Your task to perform on an android device: Open Google Maps and go to "Timeline" Image 0: 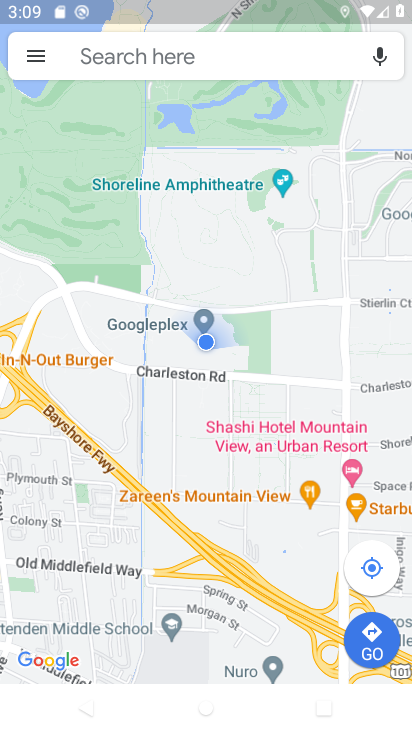
Step 0: click (24, 58)
Your task to perform on an android device: Open Google Maps and go to "Timeline" Image 1: 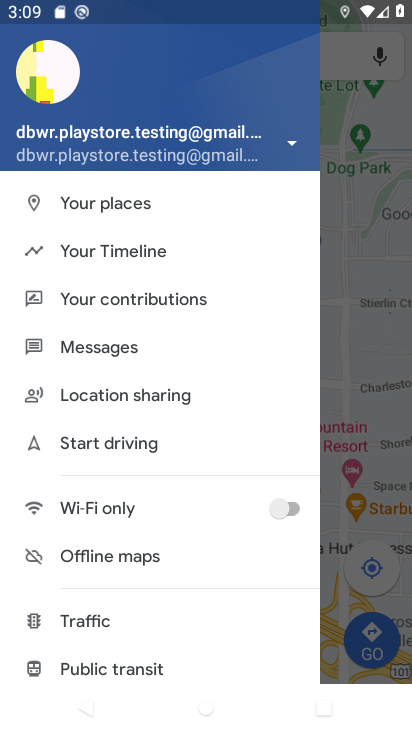
Step 1: drag from (148, 646) to (153, 422)
Your task to perform on an android device: Open Google Maps and go to "Timeline" Image 2: 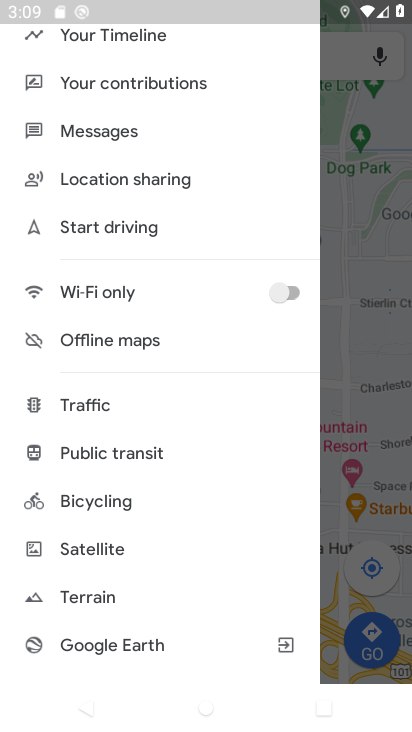
Step 2: click (139, 42)
Your task to perform on an android device: Open Google Maps and go to "Timeline" Image 3: 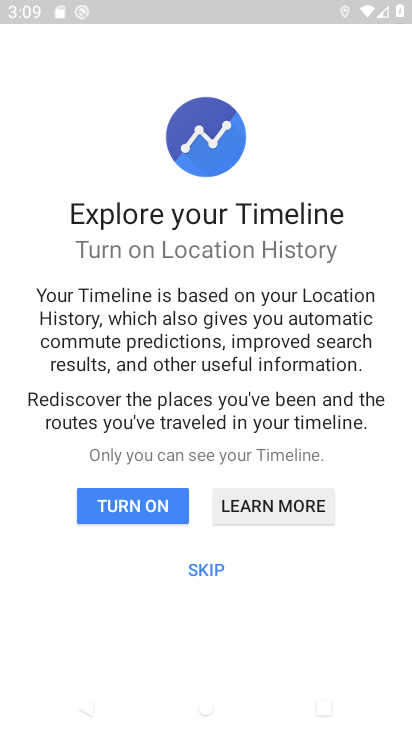
Step 3: click (206, 565)
Your task to perform on an android device: Open Google Maps and go to "Timeline" Image 4: 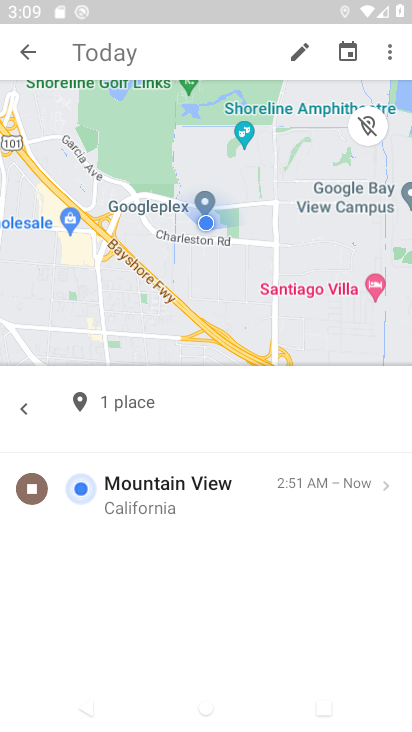
Step 4: task complete